Your task to perform on an android device: star an email in the gmail app Image 0: 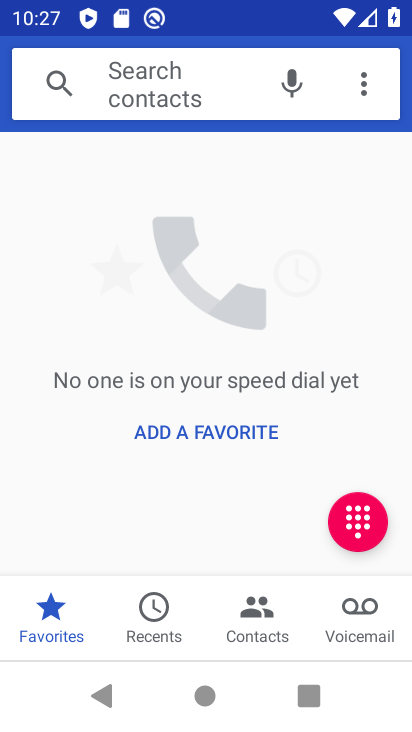
Step 0: press home button
Your task to perform on an android device: star an email in the gmail app Image 1: 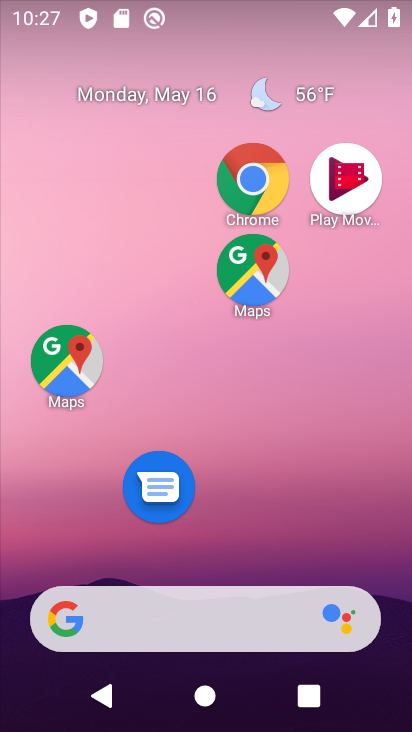
Step 1: click (231, 544)
Your task to perform on an android device: star an email in the gmail app Image 2: 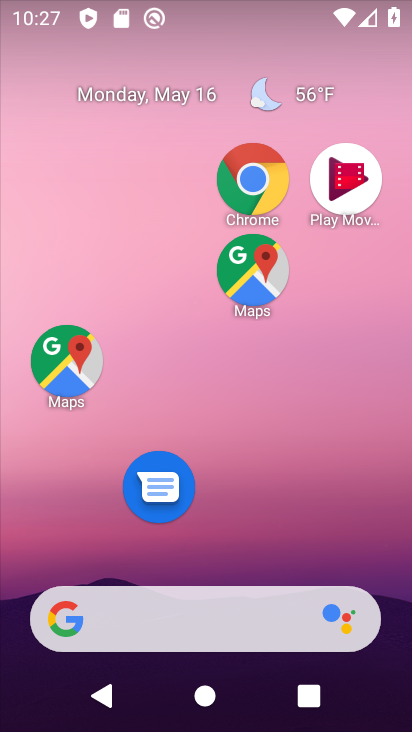
Step 2: click (232, 202)
Your task to perform on an android device: star an email in the gmail app Image 3: 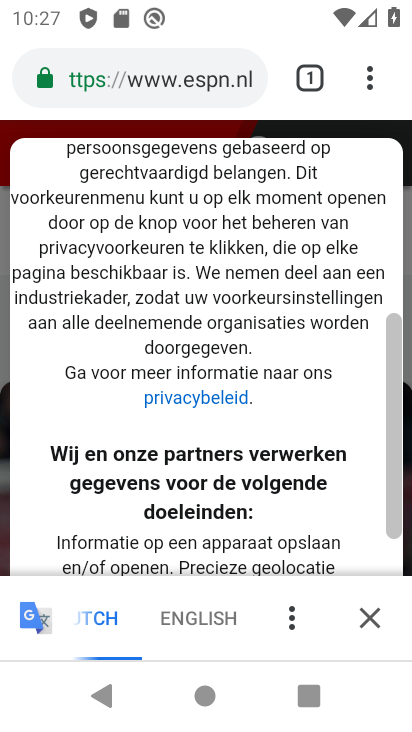
Step 3: press home button
Your task to perform on an android device: star an email in the gmail app Image 4: 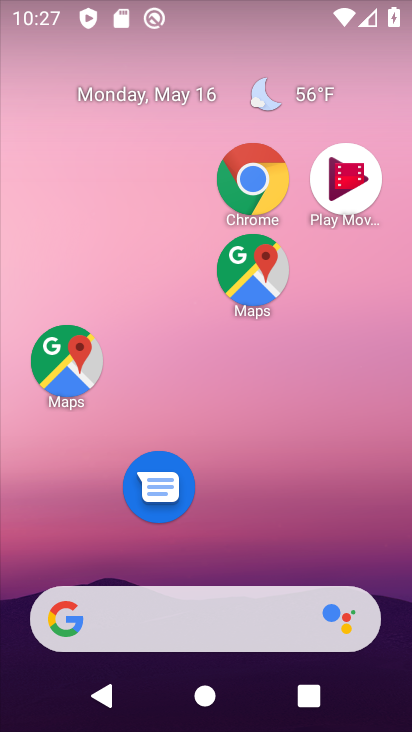
Step 4: drag from (174, 275) to (169, 148)
Your task to perform on an android device: star an email in the gmail app Image 5: 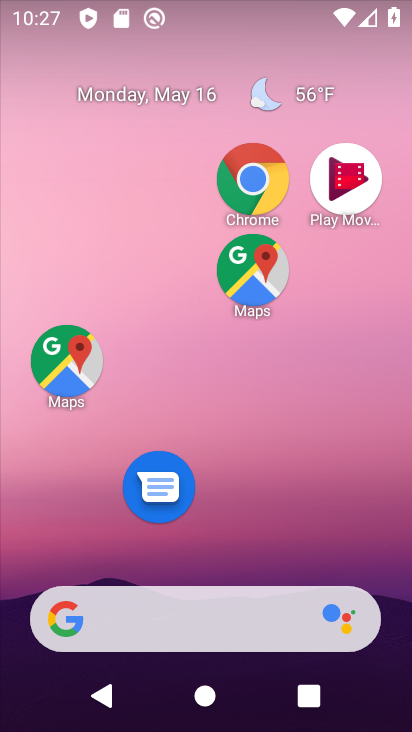
Step 5: drag from (212, 568) to (256, 93)
Your task to perform on an android device: star an email in the gmail app Image 6: 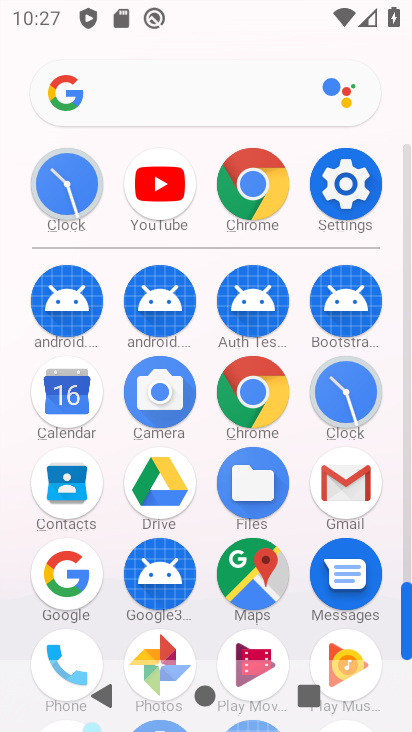
Step 6: drag from (230, 521) to (259, 242)
Your task to perform on an android device: star an email in the gmail app Image 7: 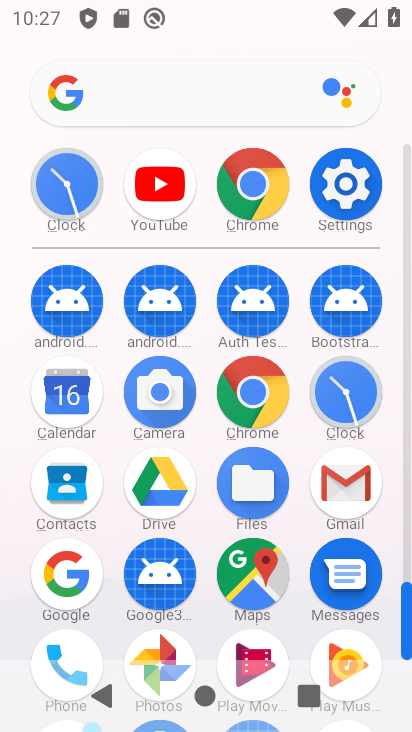
Step 7: click (347, 494)
Your task to perform on an android device: star an email in the gmail app Image 8: 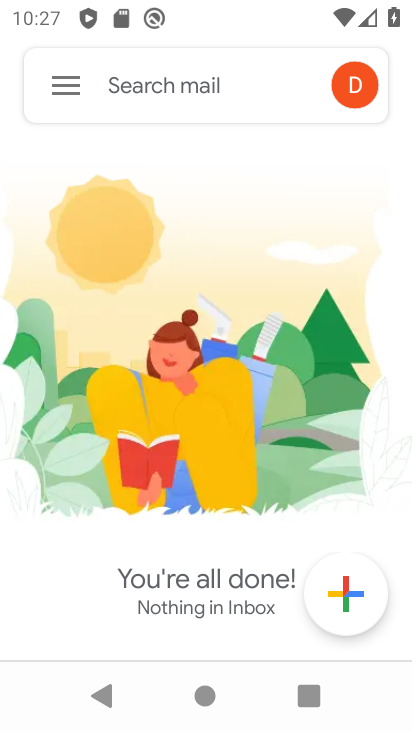
Step 8: click (68, 94)
Your task to perform on an android device: star an email in the gmail app Image 9: 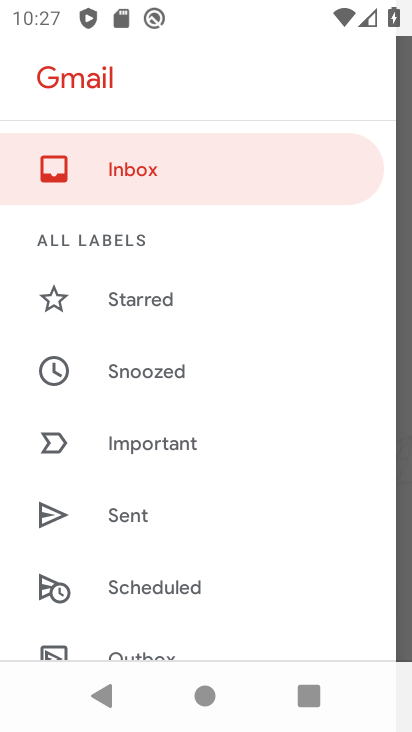
Step 9: drag from (141, 504) to (141, 311)
Your task to perform on an android device: star an email in the gmail app Image 10: 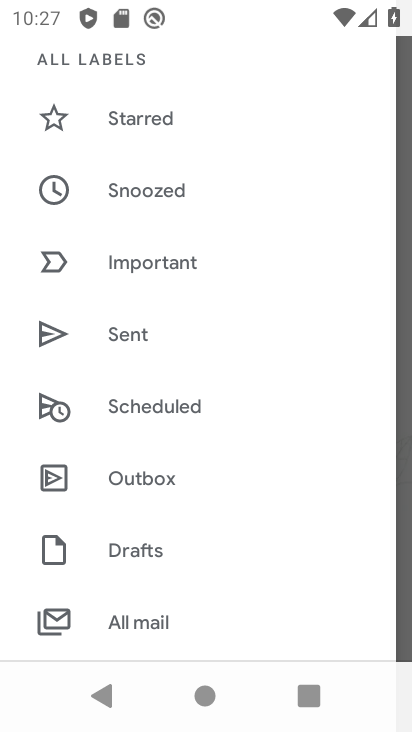
Step 10: click (132, 620)
Your task to perform on an android device: star an email in the gmail app Image 11: 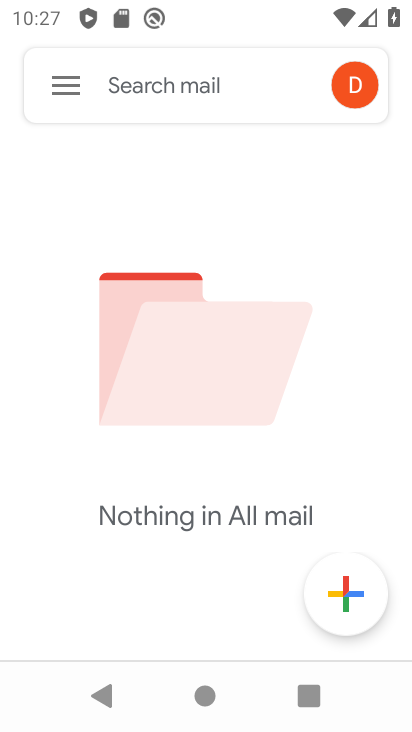
Step 11: task complete